Your task to perform on an android device: Open the Play Movies app and select the watchlist tab. Image 0: 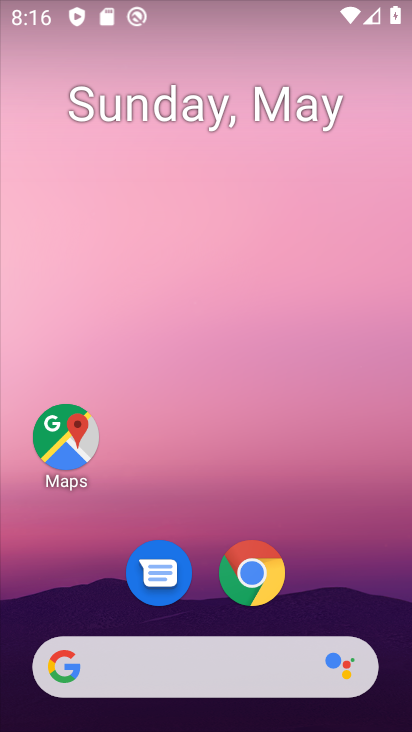
Step 0: drag from (365, 598) to (315, 135)
Your task to perform on an android device: Open the Play Movies app and select the watchlist tab. Image 1: 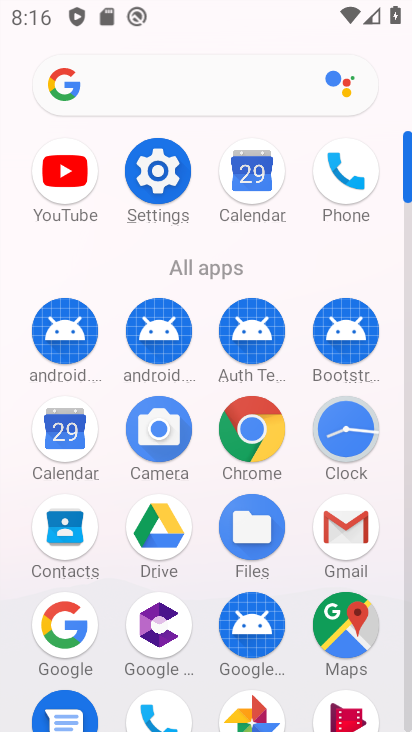
Step 1: click (347, 718)
Your task to perform on an android device: Open the Play Movies app and select the watchlist tab. Image 2: 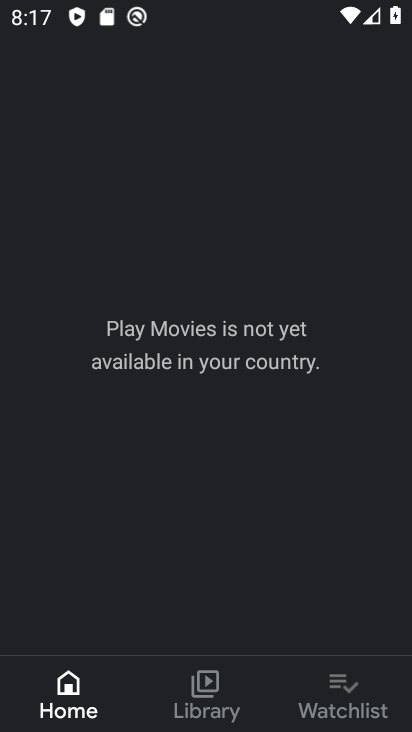
Step 2: click (347, 718)
Your task to perform on an android device: Open the Play Movies app and select the watchlist tab. Image 3: 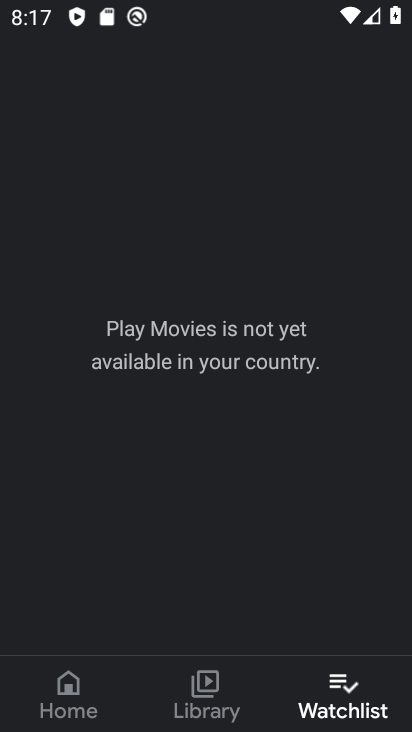
Step 3: task complete